Your task to perform on an android device: Check the weather Image 0: 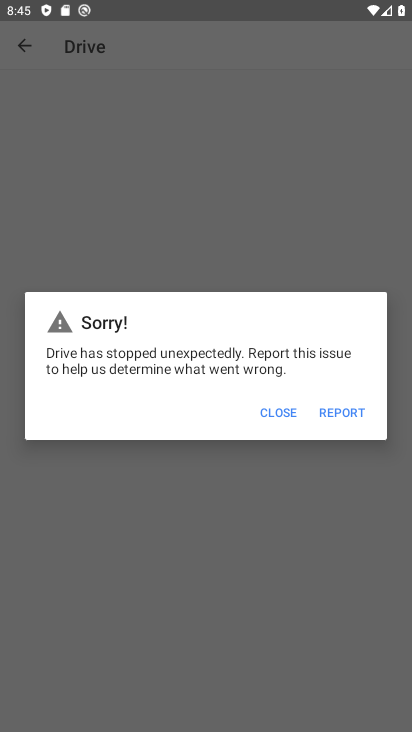
Step 0: press home button
Your task to perform on an android device: Check the weather Image 1: 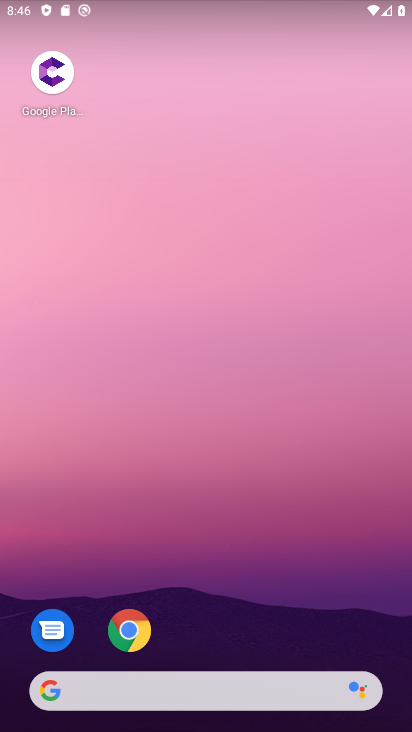
Step 1: drag from (210, 692) to (293, 105)
Your task to perform on an android device: Check the weather Image 2: 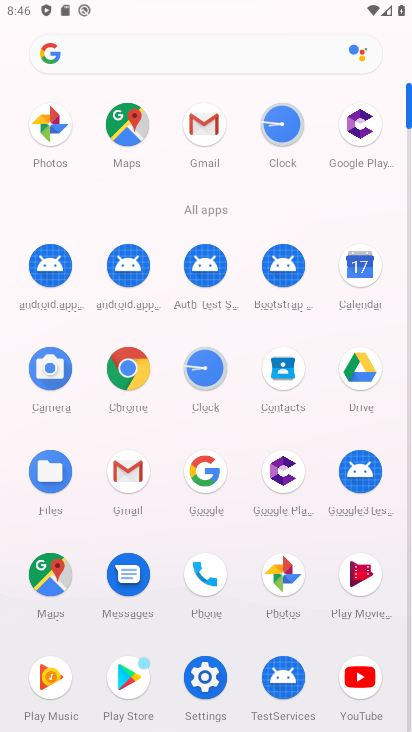
Step 2: click (123, 386)
Your task to perform on an android device: Check the weather Image 3: 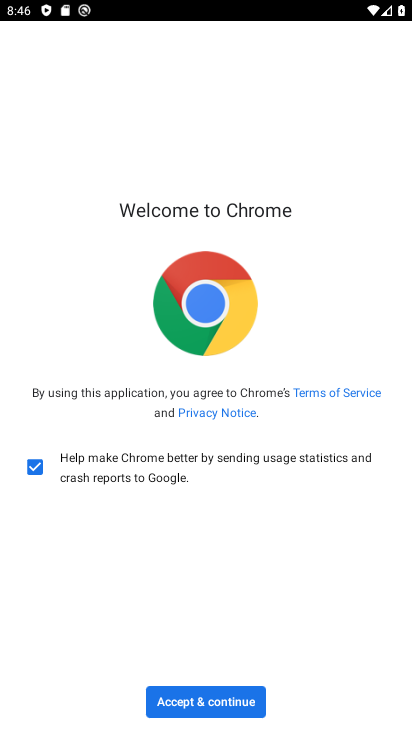
Step 3: click (239, 705)
Your task to perform on an android device: Check the weather Image 4: 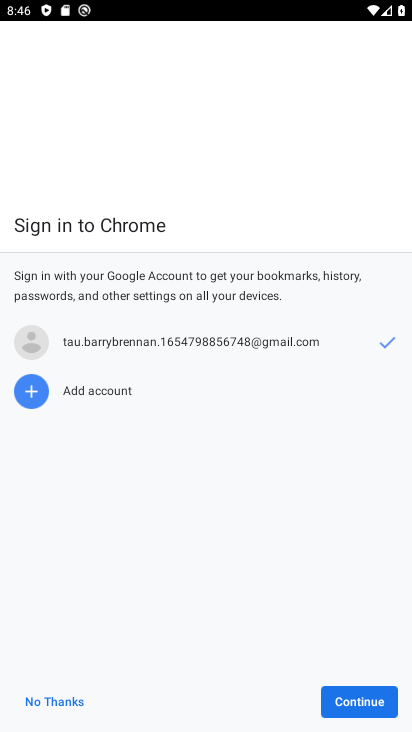
Step 4: click (55, 705)
Your task to perform on an android device: Check the weather Image 5: 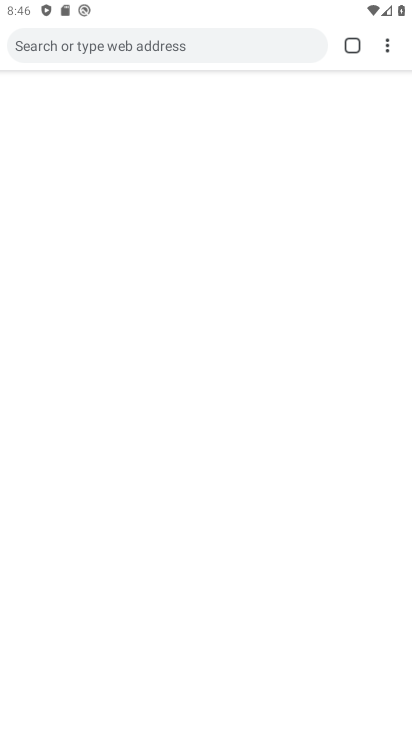
Step 5: click (213, 56)
Your task to perform on an android device: Check the weather Image 6: 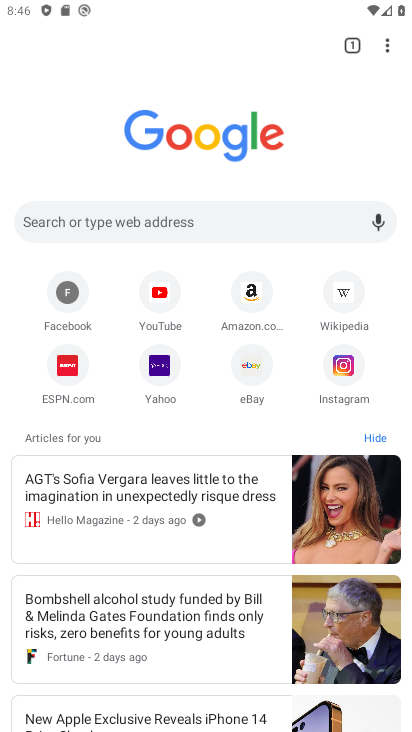
Step 6: click (231, 224)
Your task to perform on an android device: Check the weather Image 7: 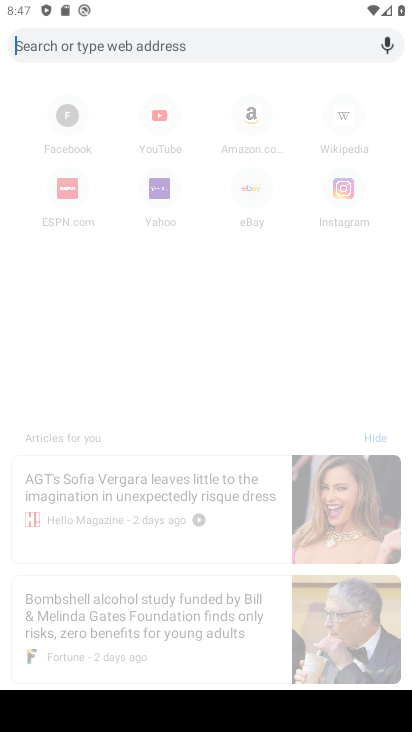
Step 7: type "check the weather"
Your task to perform on an android device: Check the weather Image 8: 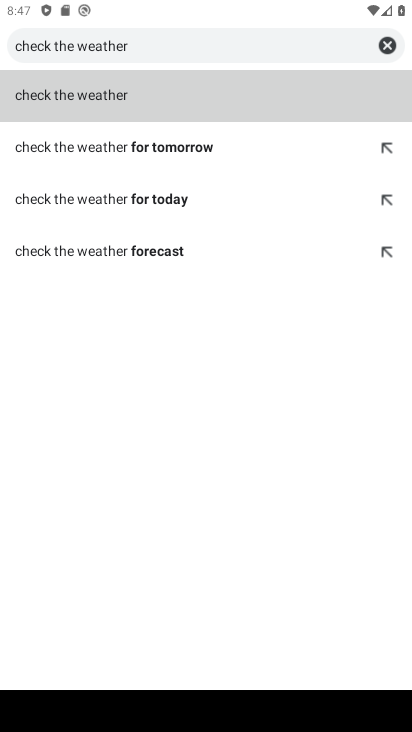
Step 8: click (166, 88)
Your task to perform on an android device: Check the weather Image 9: 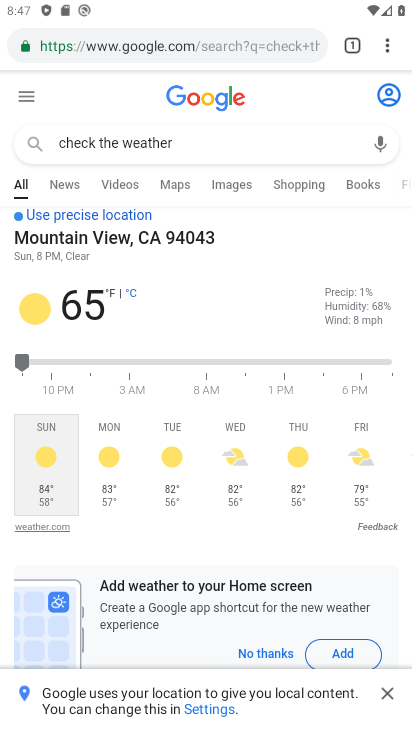
Step 9: task complete